Your task to perform on an android device: add a contact Image 0: 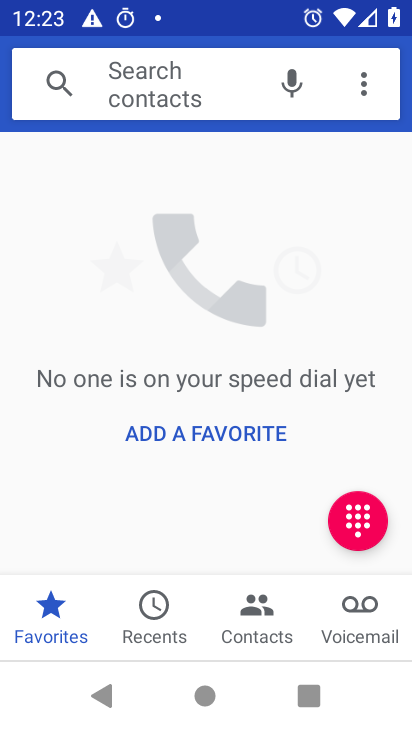
Step 0: press back button
Your task to perform on an android device: add a contact Image 1: 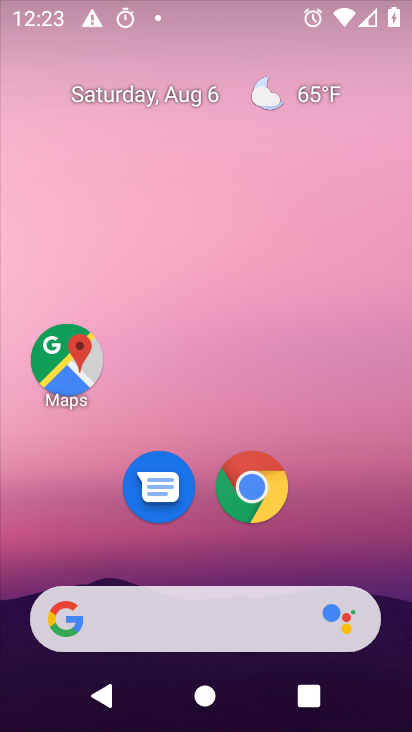
Step 1: drag from (146, 586) to (229, 62)
Your task to perform on an android device: add a contact Image 2: 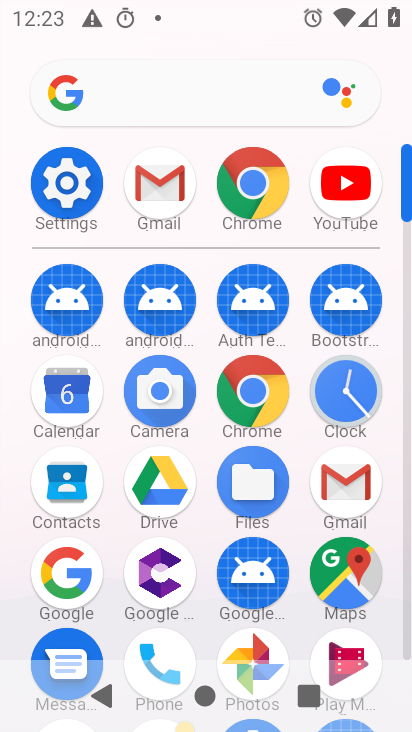
Step 2: click (75, 497)
Your task to perform on an android device: add a contact Image 3: 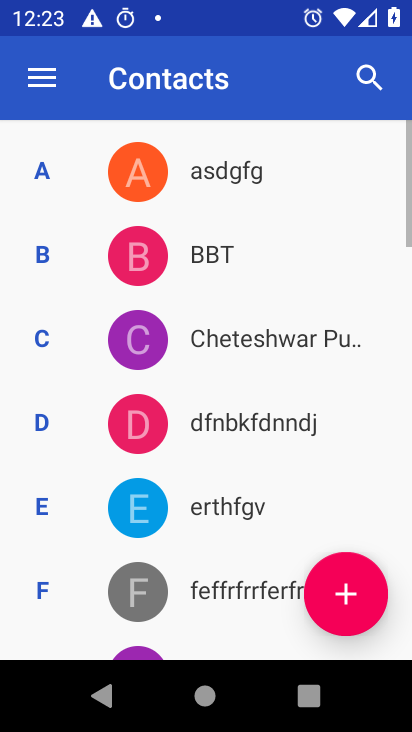
Step 3: click (341, 598)
Your task to perform on an android device: add a contact Image 4: 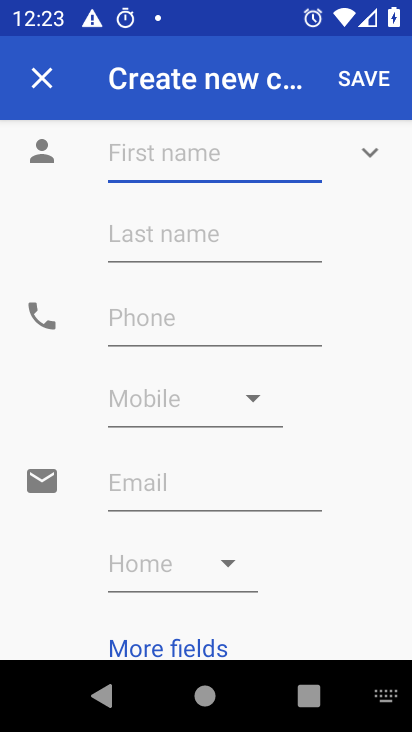
Step 4: type "hhv"
Your task to perform on an android device: add a contact Image 5: 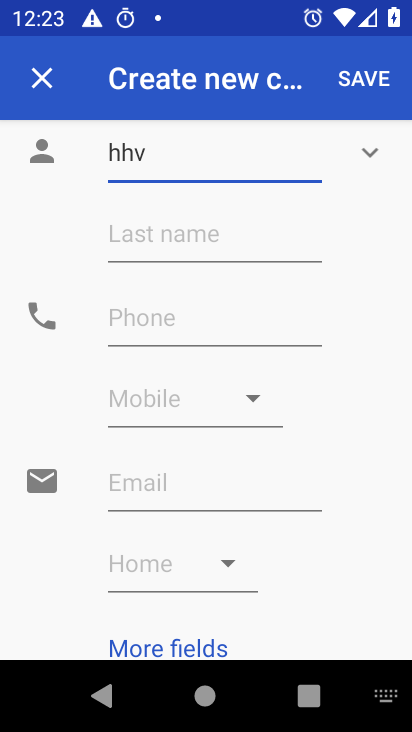
Step 5: click (123, 327)
Your task to perform on an android device: add a contact Image 6: 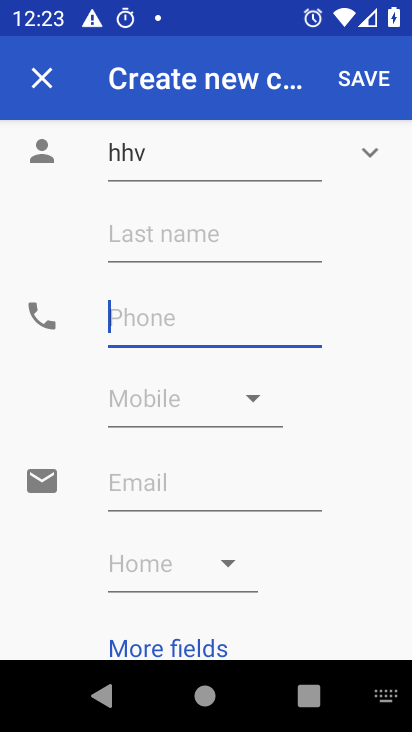
Step 6: type "87878"
Your task to perform on an android device: add a contact Image 7: 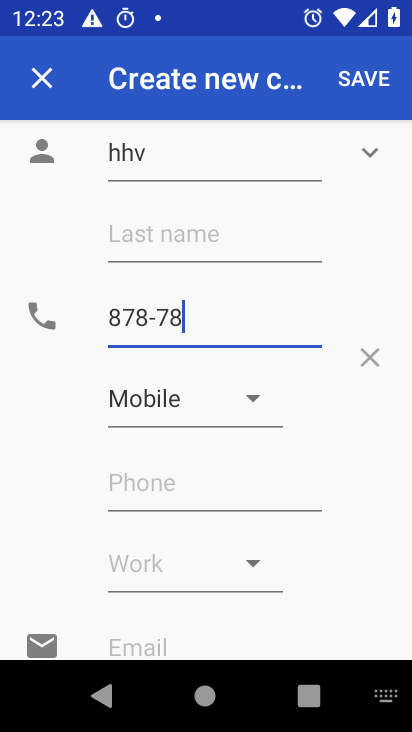
Step 7: click (368, 73)
Your task to perform on an android device: add a contact Image 8: 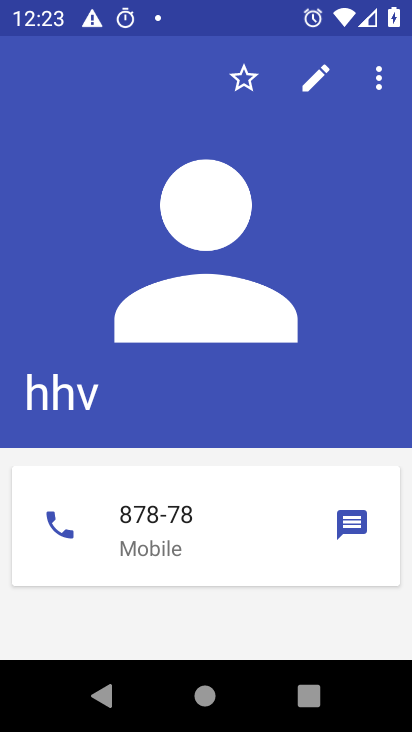
Step 8: task complete